Your task to perform on an android device: Open calendar and show me the first week of next month Image 0: 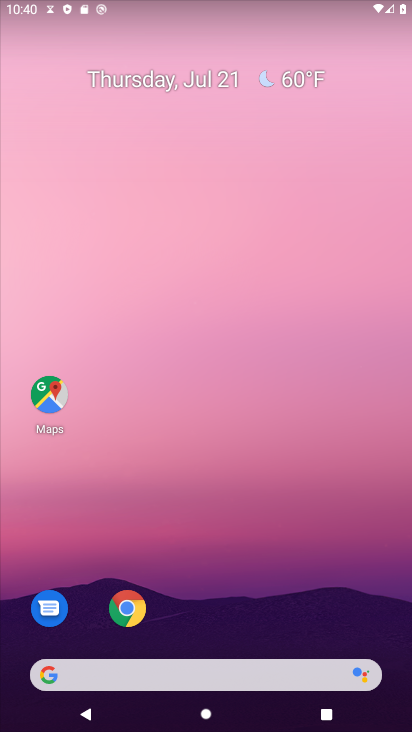
Step 0: drag from (190, 537) to (168, 253)
Your task to perform on an android device: Open calendar and show me the first week of next month Image 1: 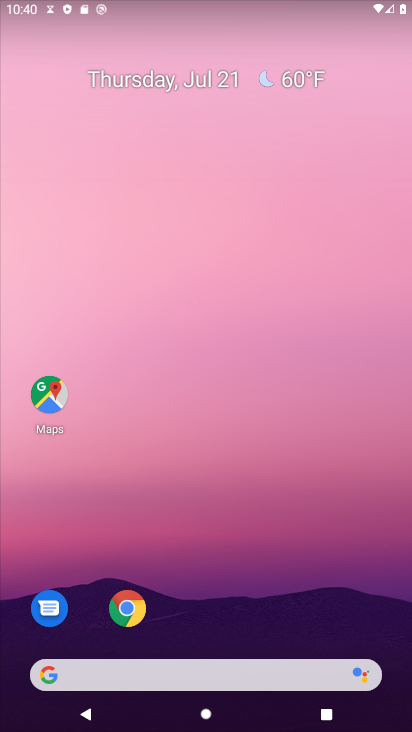
Step 1: drag from (212, 601) to (202, 0)
Your task to perform on an android device: Open calendar and show me the first week of next month Image 2: 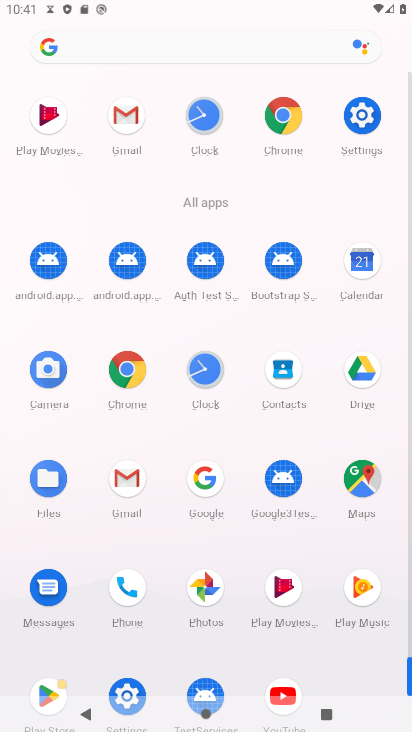
Step 2: click (369, 289)
Your task to perform on an android device: Open calendar and show me the first week of next month Image 3: 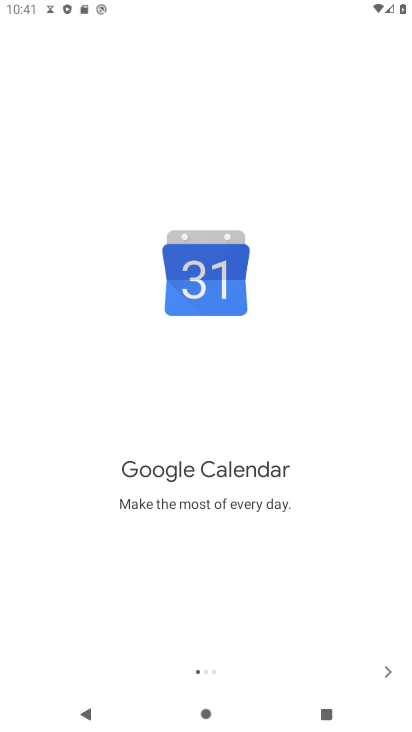
Step 3: click (380, 664)
Your task to perform on an android device: Open calendar and show me the first week of next month Image 4: 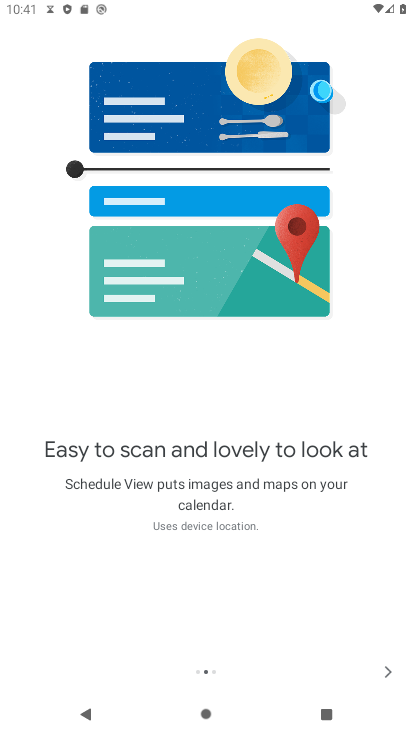
Step 4: click (390, 667)
Your task to perform on an android device: Open calendar and show me the first week of next month Image 5: 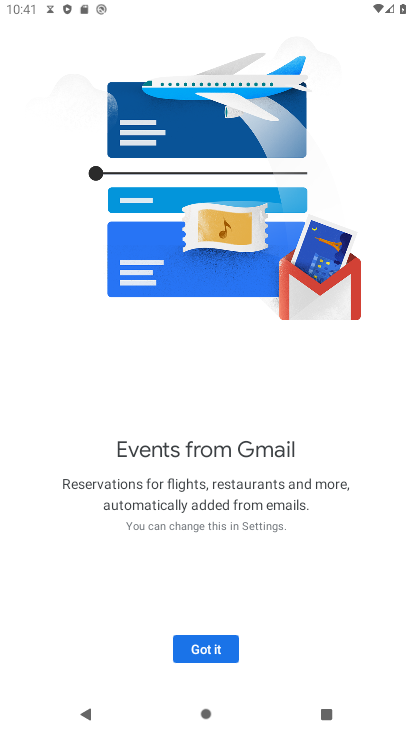
Step 5: click (203, 648)
Your task to perform on an android device: Open calendar and show me the first week of next month Image 6: 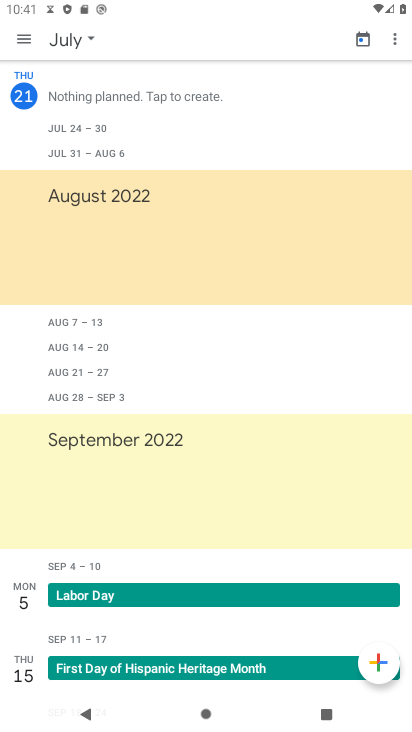
Step 6: click (14, 43)
Your task to perform on an android device: Open calendar and show me the first week of next month Image 7: 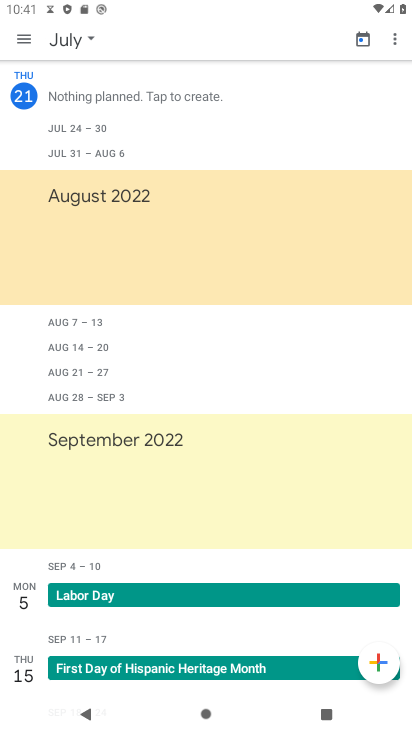
Step 7: click (20, 32)
Your task to perform on an android device: Open calendar and show me the first week of next month Image 8: 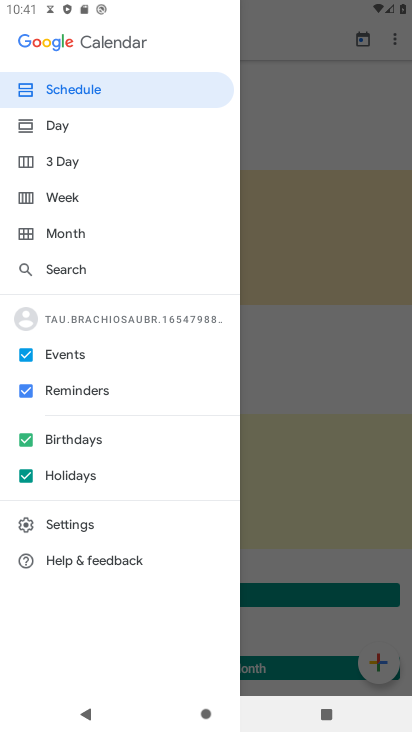
Step 8: click (83, 197)
Your task to perform on an android device: Open calendar and show me the first week of next month Image 9: 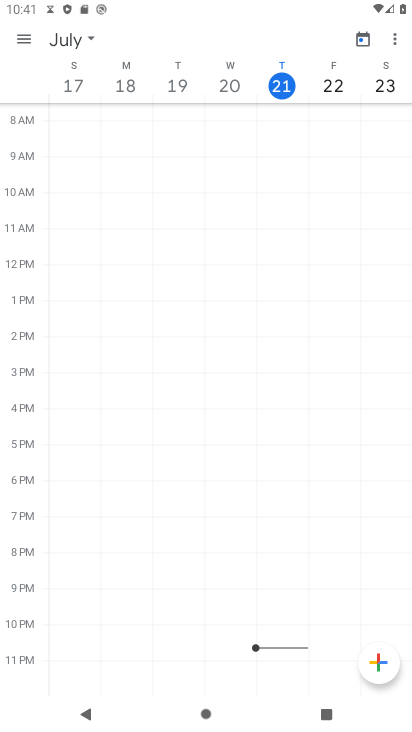
Step 9: task complete